Your task to perform on an android device: star an email in the gmail app Image 0: 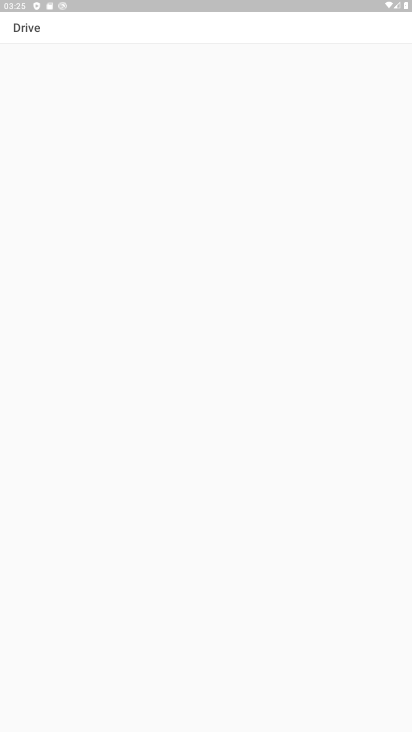
Step 0: press home button
Your task to perform on an android device: star an email in the gmail app Image 1: 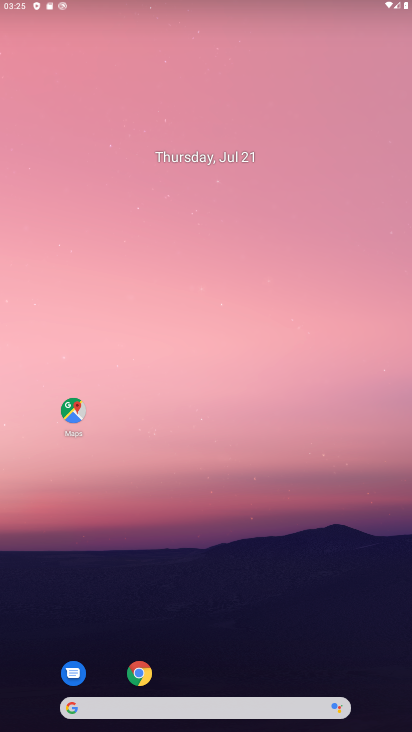
Step 1: drag from (269, 639) to (305, 70)
Your task to perform on an android device: star an email in the gmail app Image 2: 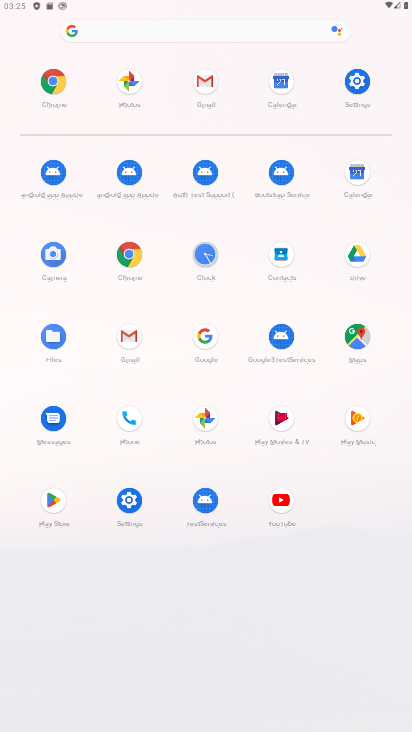
Step 2: click (211, 84)
Your task to perform on an android device: star an email in the gmail app Image 3: 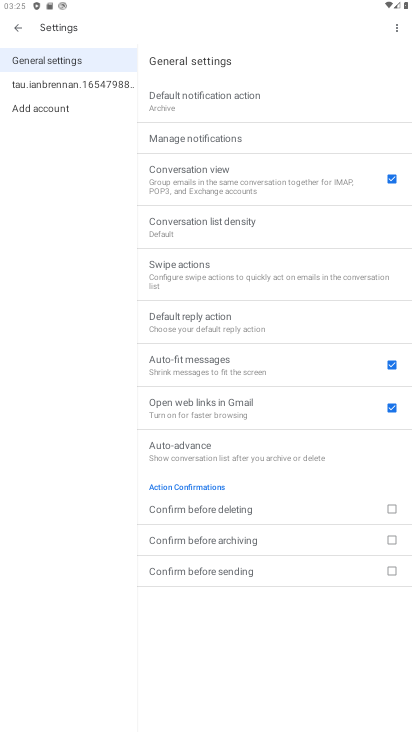
Step 3: click (14, 23)
Your task to perform on an android device: star an email in the gmail app Image 4: 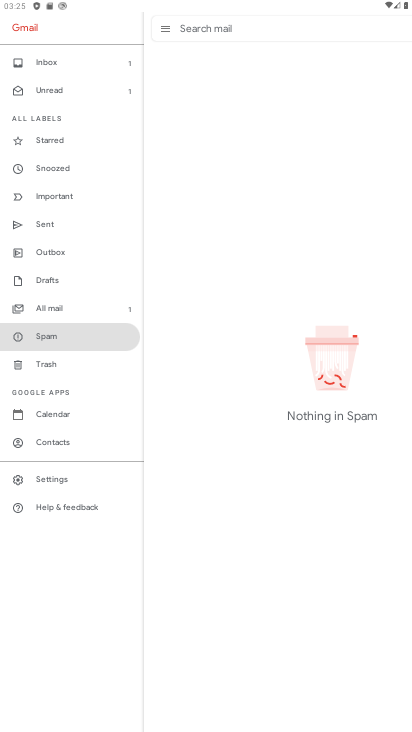
Step 4: click (57, 309)
Your task to perform on an android device: star an email in the gmail app Image 5: 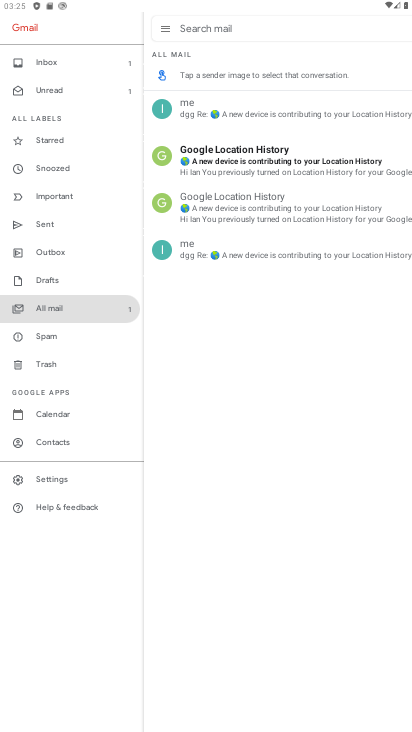
Step 5: click (287, 237)
Your task to perform on an android device: star an email in the gmail app Image 6: 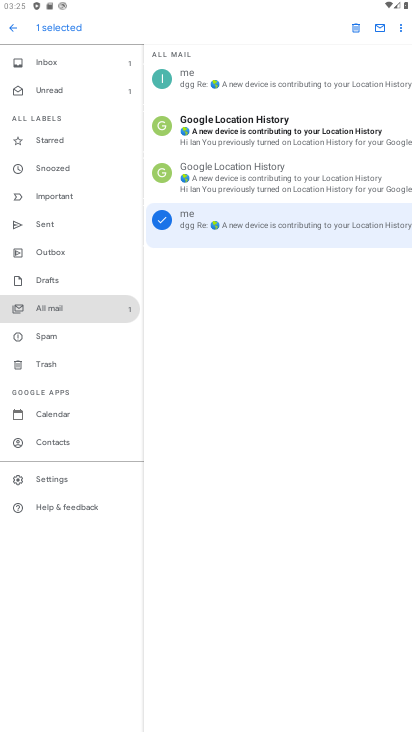
Step 6: click (292, 225)
Your task to perform on an android device: star an email in the gmail app Image 7: 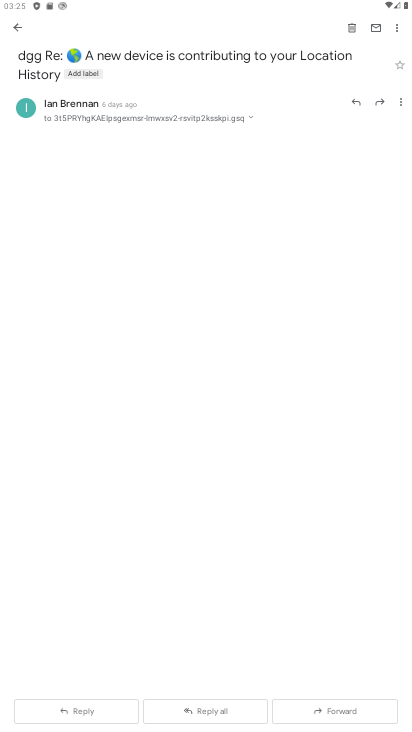
Step 7: click (398, 63)
Your task to perform on an android device: star an email in the gmail app Image 8: 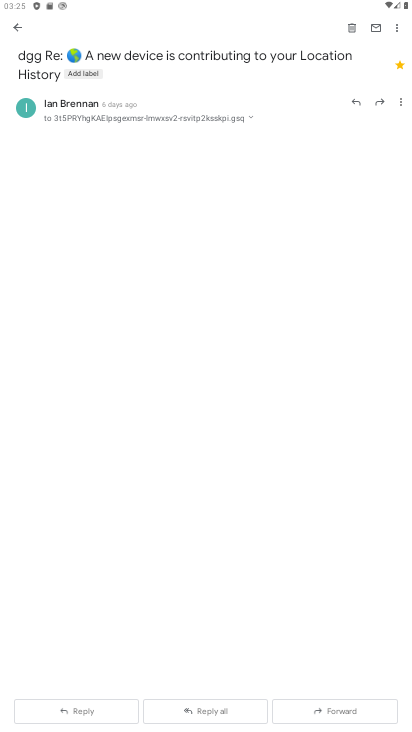
Step 8: task complete